Your task to perform on an android device: add a contact Image 0: 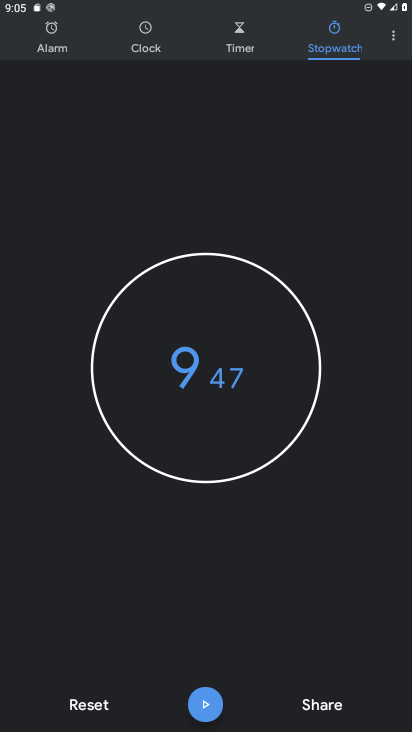
Step 0: press home button
Your task to perform on an android device: add a contact Image 1: 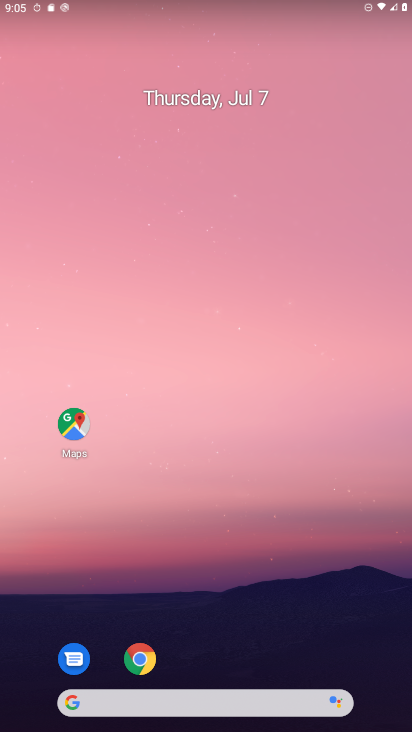
Step 1: drag from (360, 668) to (308, 0)
Your task to perform on an android device: add a contact Image 2: 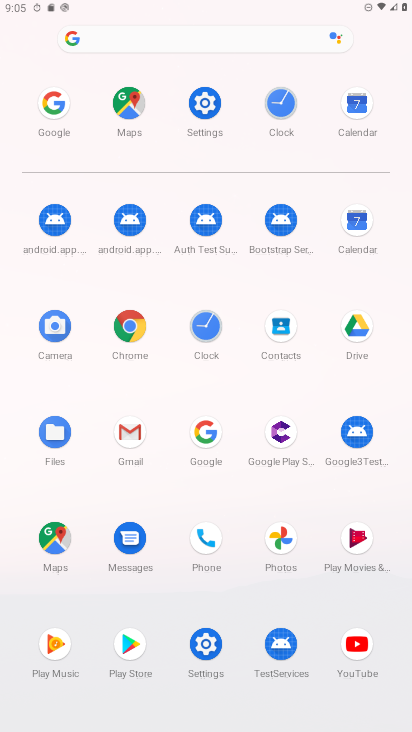
Step 2: click (280, 330)
Your task to perform on an android device: add a contact Image 3: 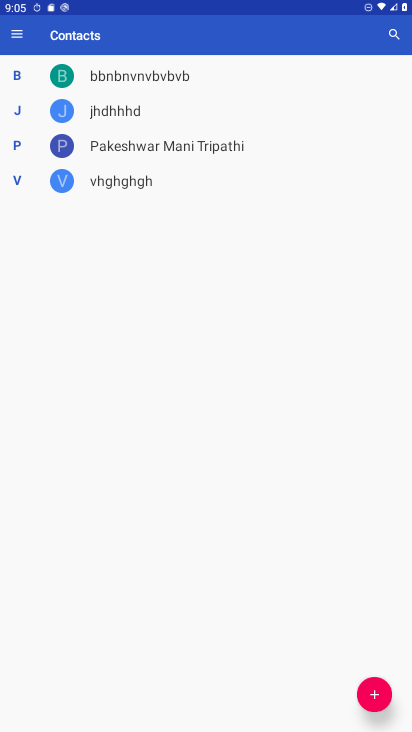
Step 3: click (371, 693)
Your task to perform on an android device: add a contact Image 4: 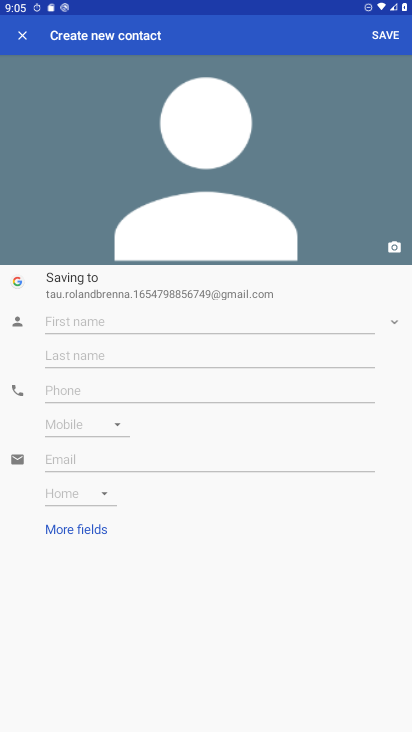
Step 4: click (79, 320)
Your task to perform on an android device: add a contact Image 5: 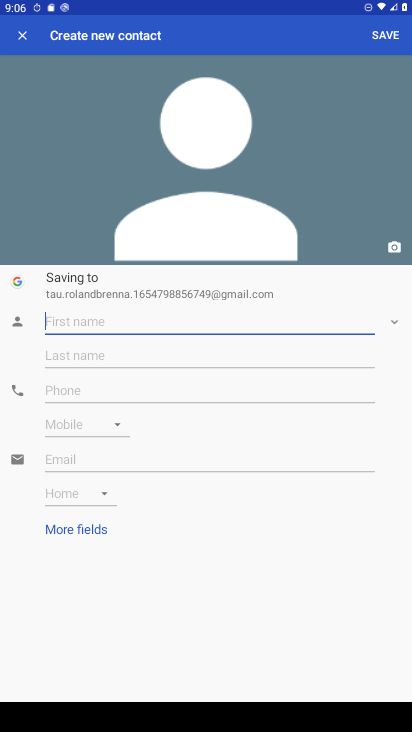
Step 5: type "Falak"
Your task to perform on an android device: add a contact Image 6: 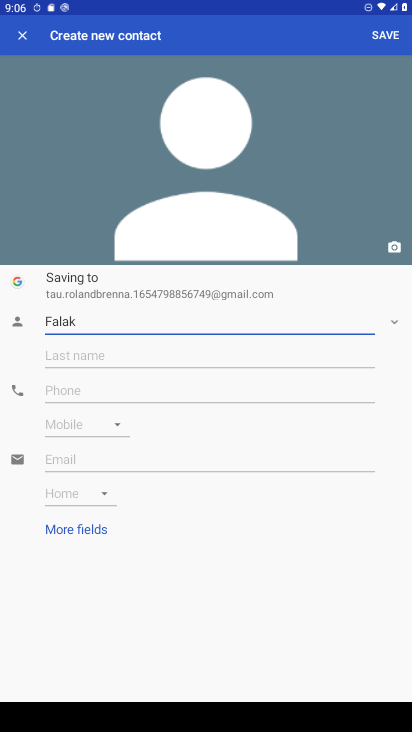
Step 6: click (385, 41)
Your task to perform on an android device: add a contact Image 7: 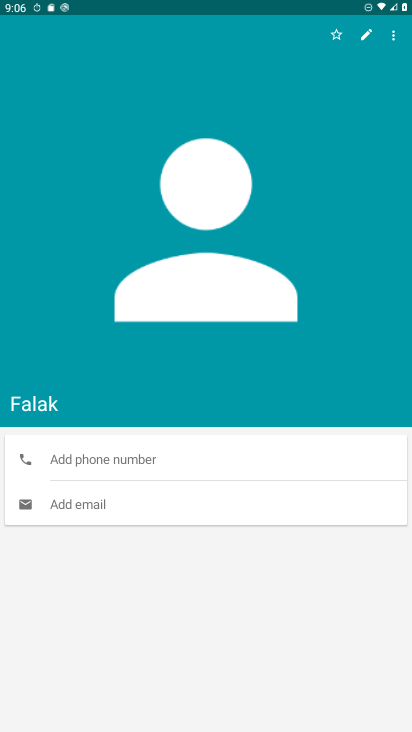
Step 7: task complete